Your task to perform on an android device: search for console tables on article.com Image 0: 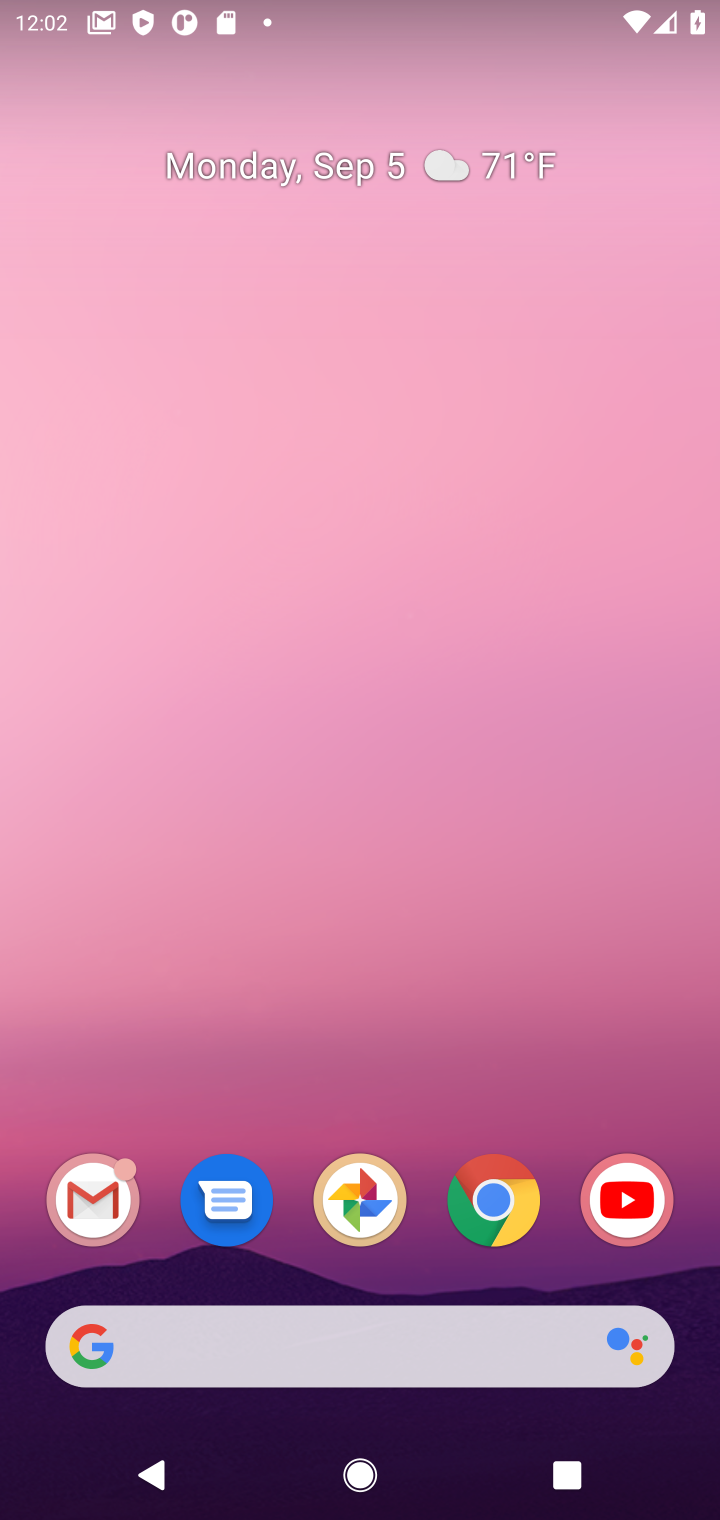
Step 0: drag from (484, 1304) to (639, 280)
Your task to perform on an android device: search for console tables on article.com Image 1: 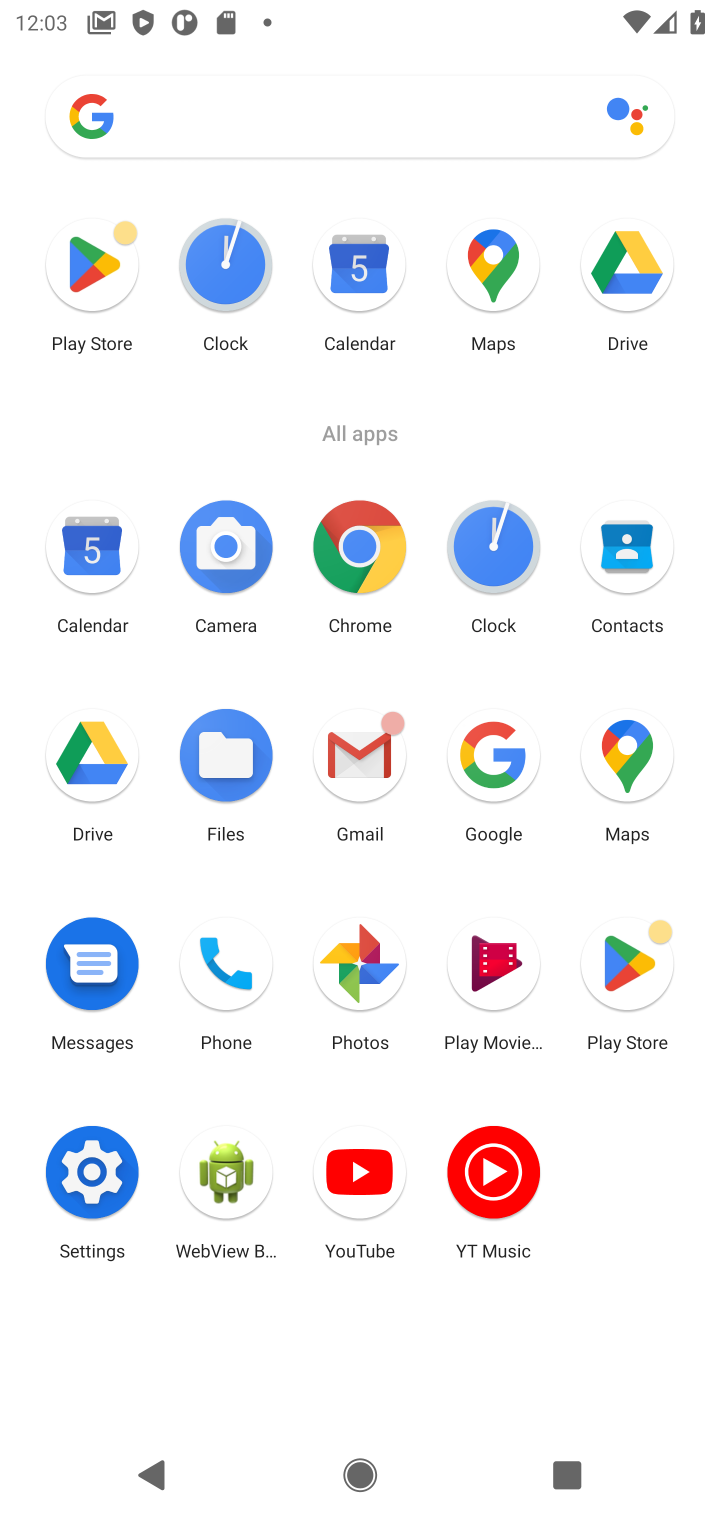
Step 1: click (357, 572)
Your task to perform on an android device: search for console tables on article.com Image 2: 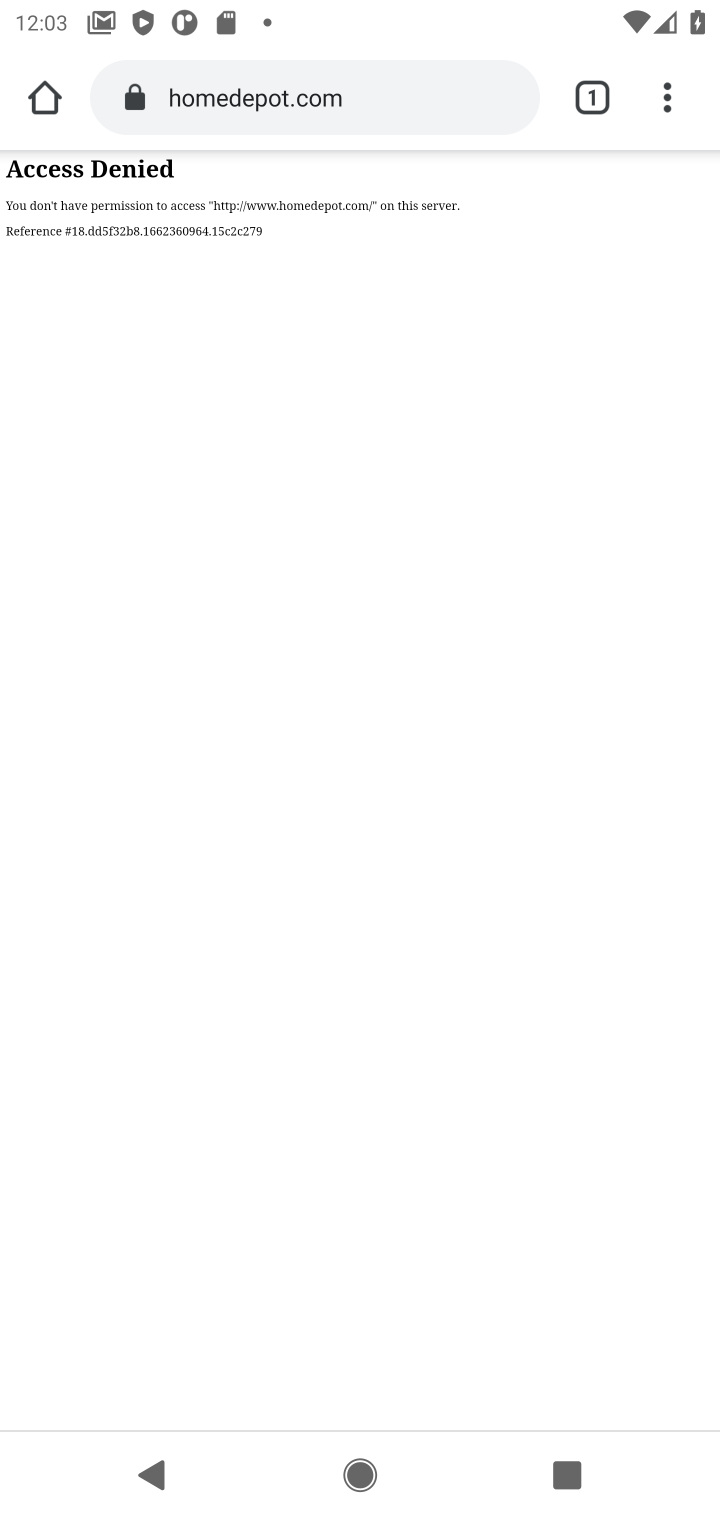
Step 2: click (431, 105)
Your task to perform on an android device: search for console tables on article.com Image 3: 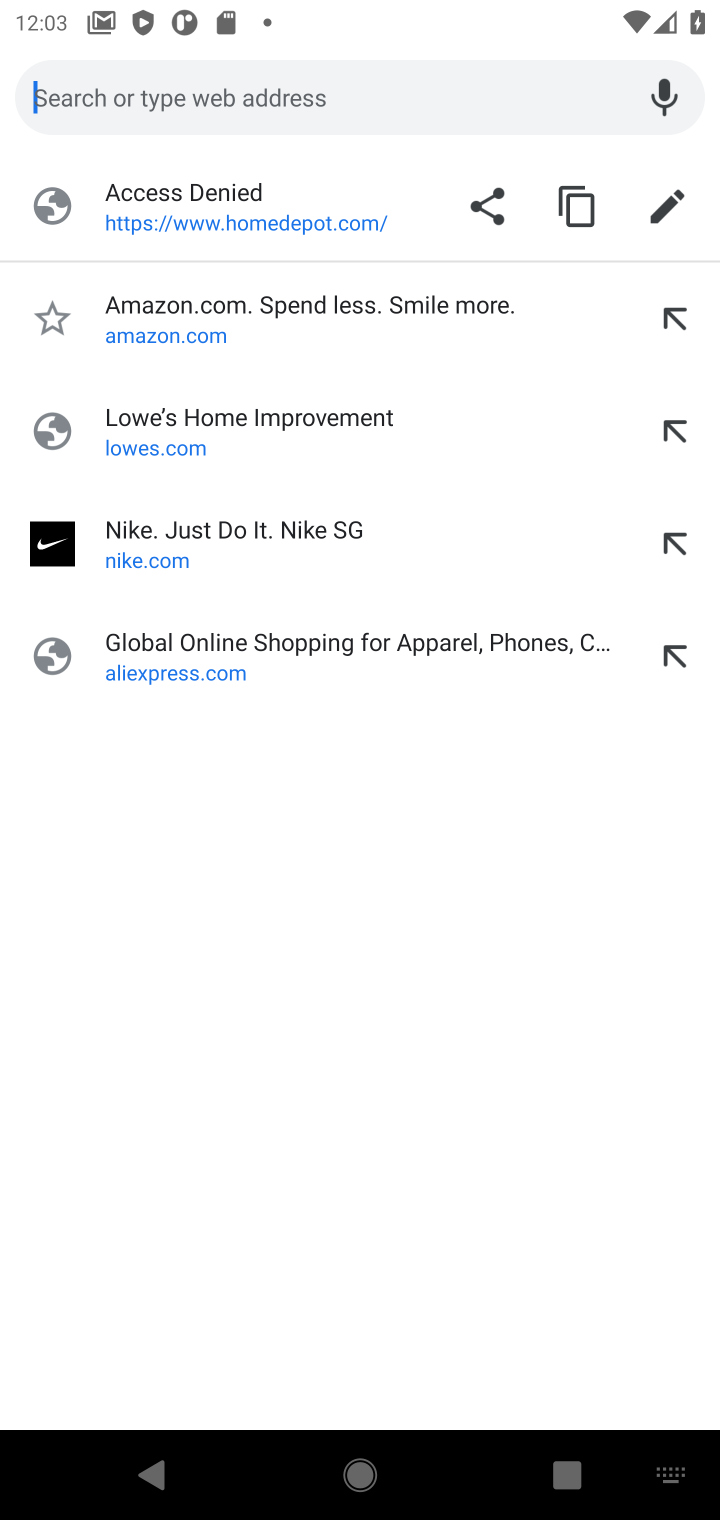
Step 3: type "article.com"
Your task to perform on an android device: search for console tables on article.com Image 4: 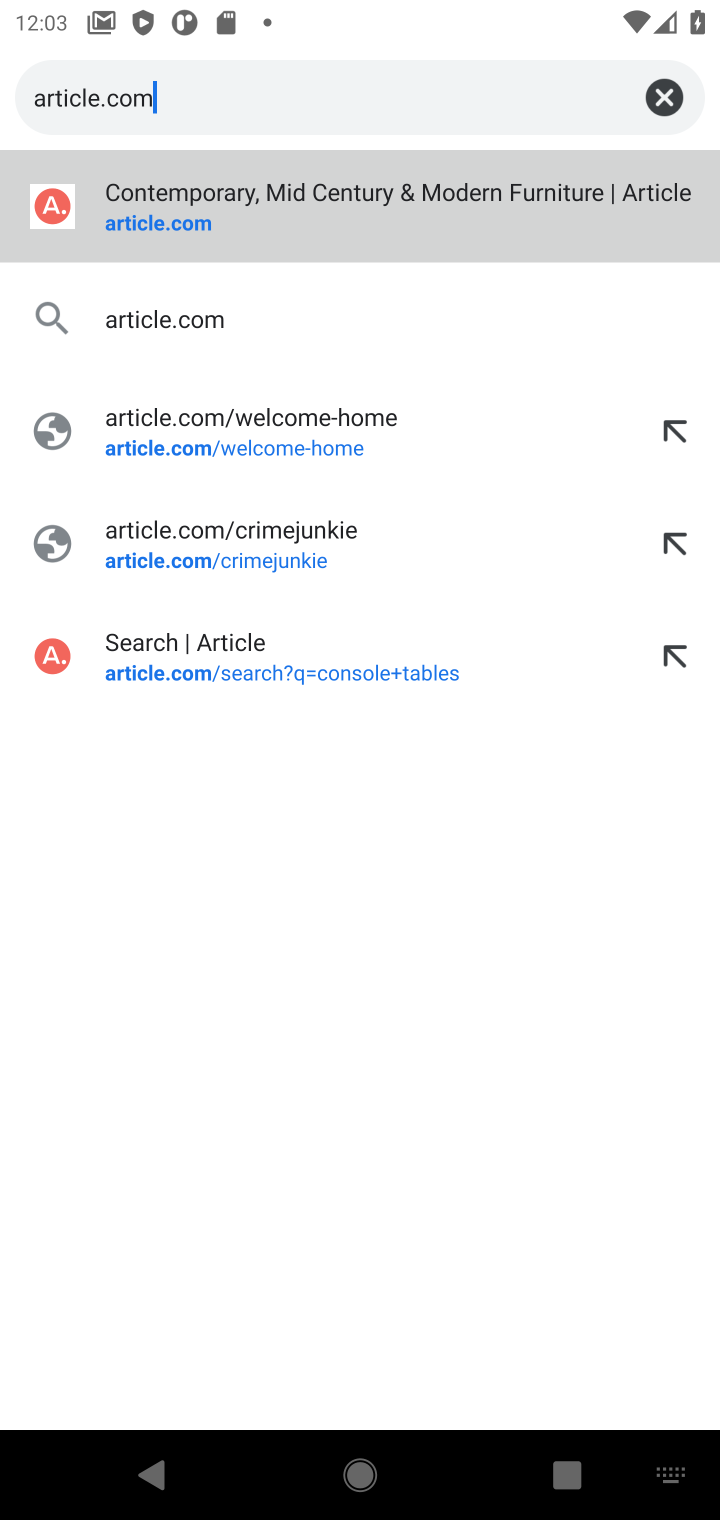
Step 4: click (447, 212)
Your task to perform on an android device: search for console tables on article.com Image 5: 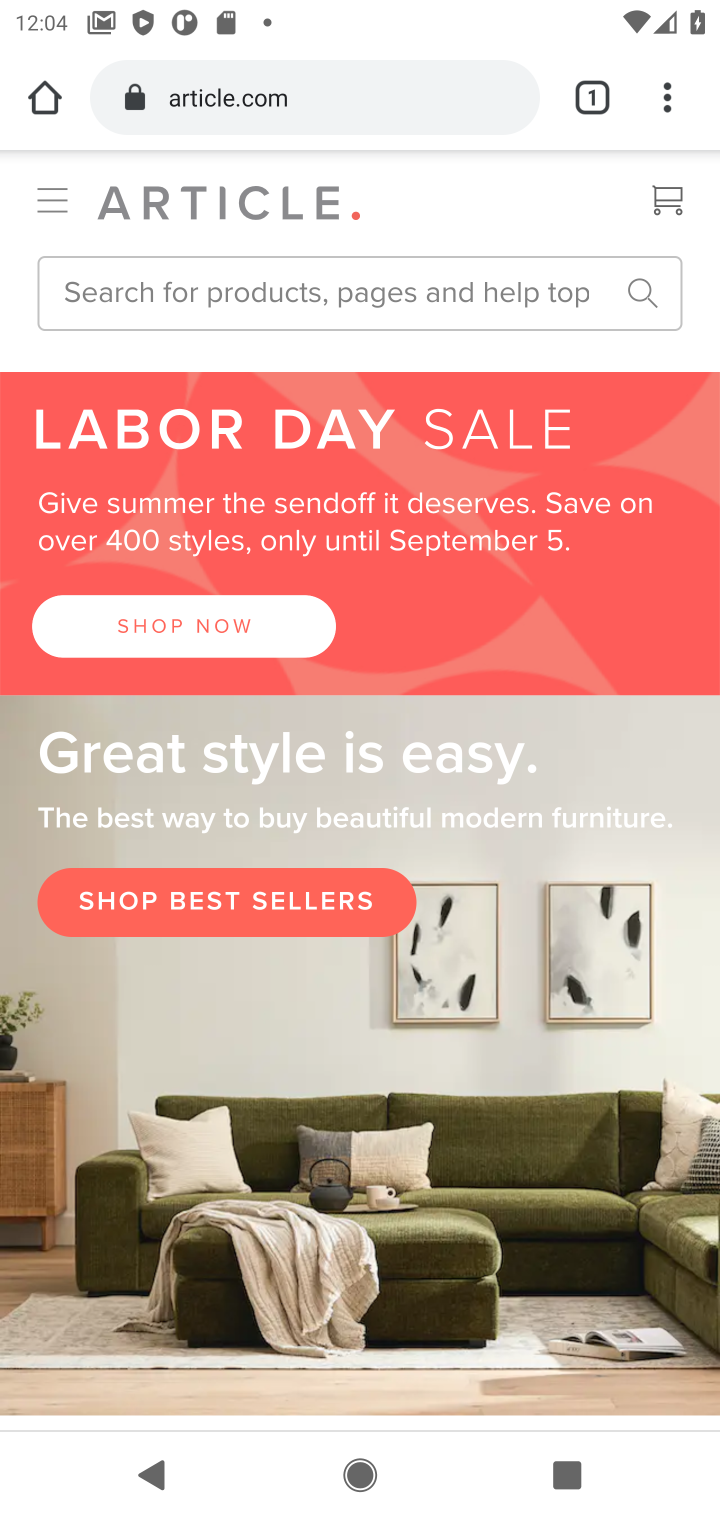
Step 5: click (302, 288)
Your task to perform on an android device: search for console tables on article.com Image 6: 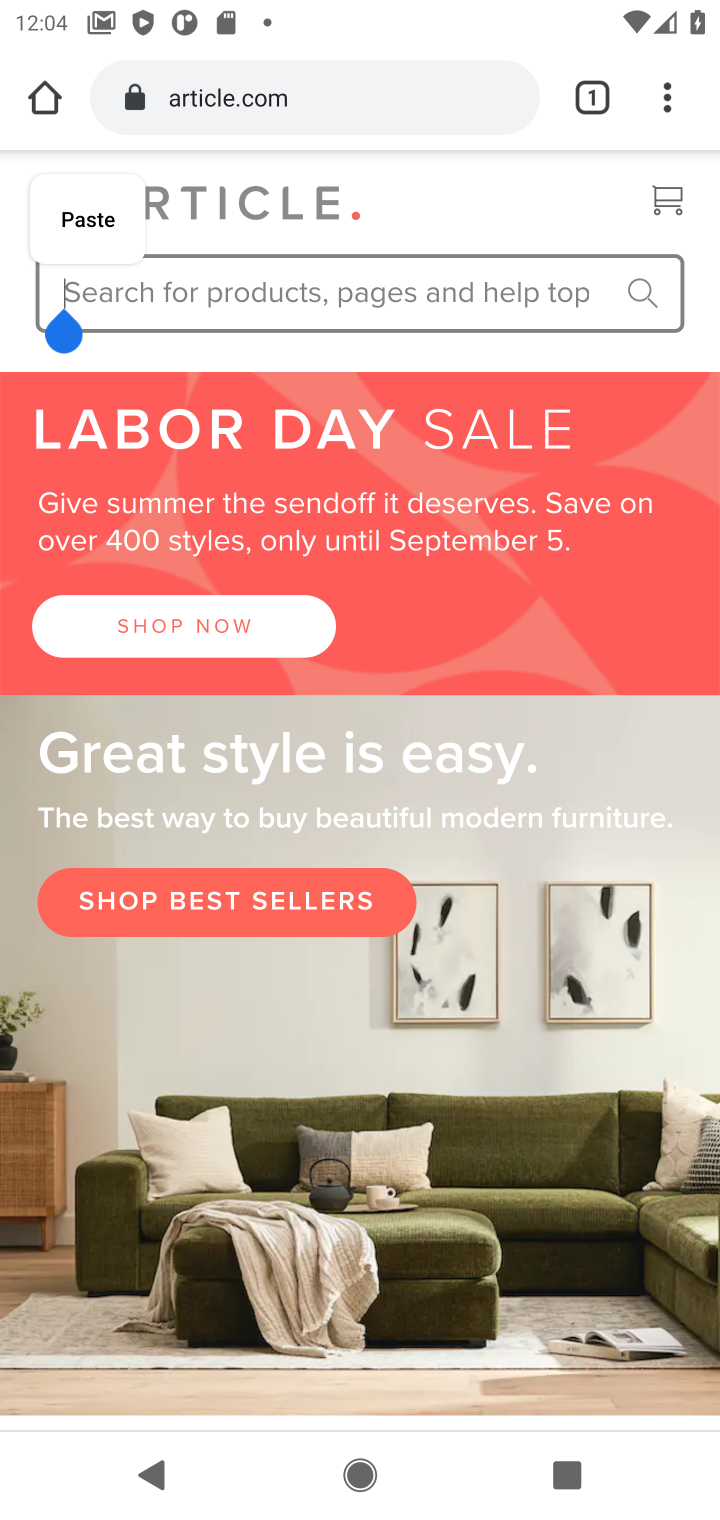
Step 6: type "consol tables"
Your task to perform on an android device: search for console tables on article.com Image 7: 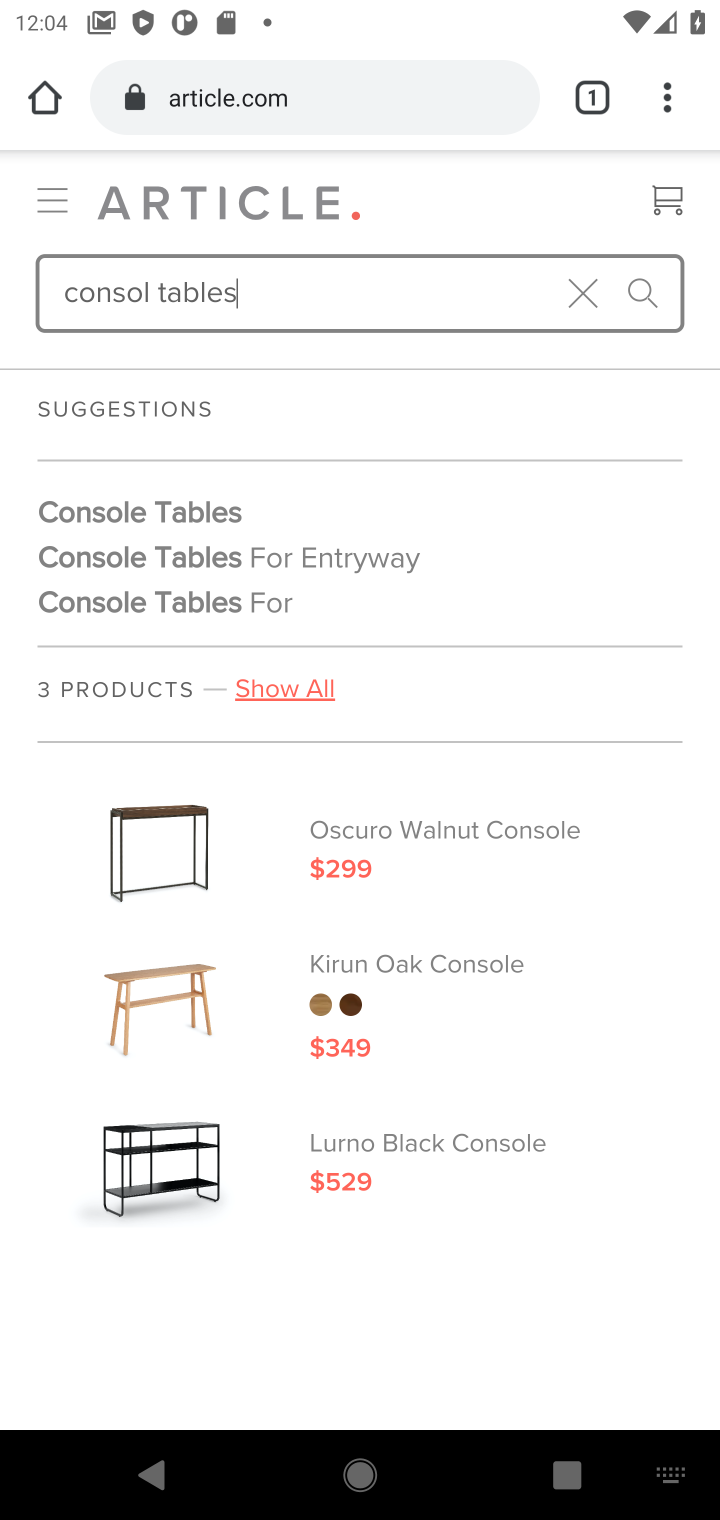
Step 7: click (161, 517)
Your task to perform on an android device: search for console tables on article.com Image 8: 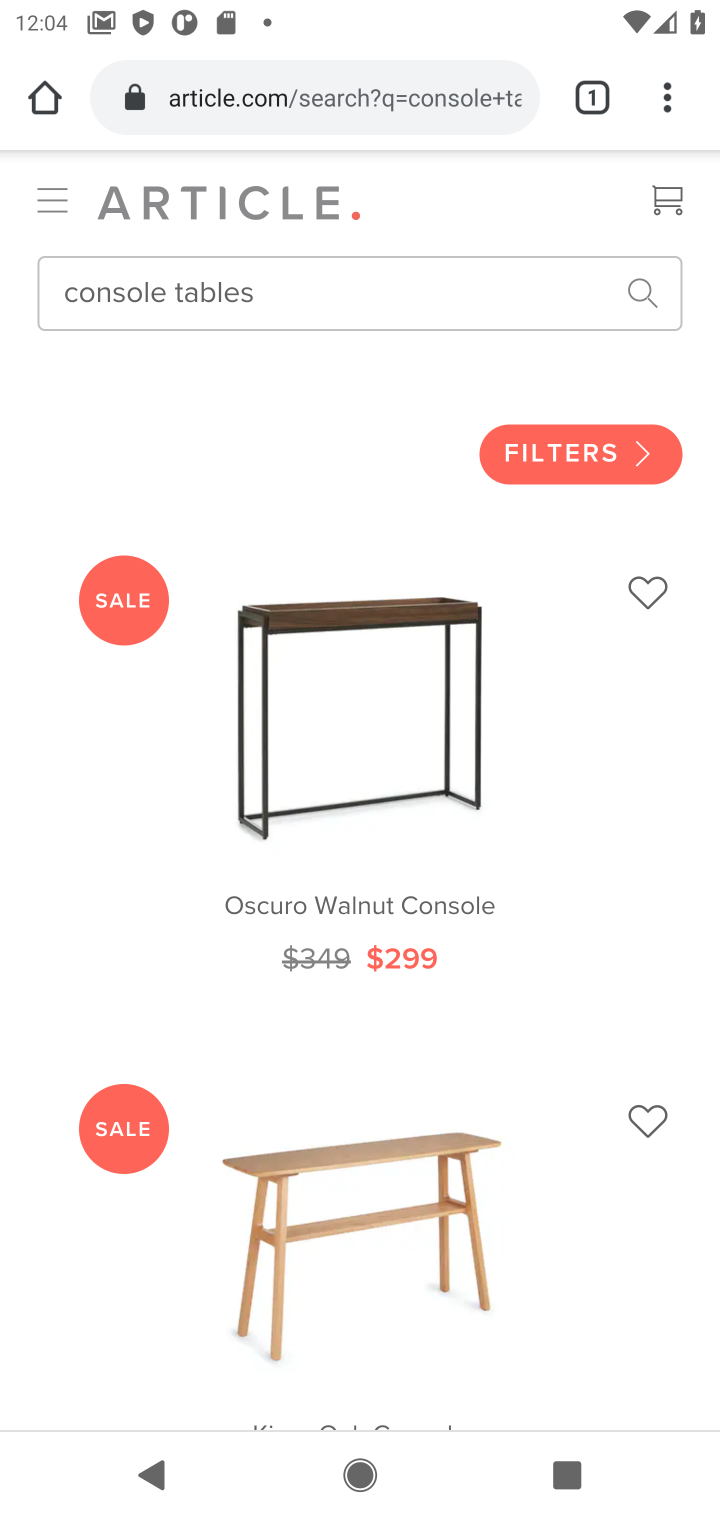
Step 8: task complete